Your task to perform on an android device: Is it going to rain today? Image 0: 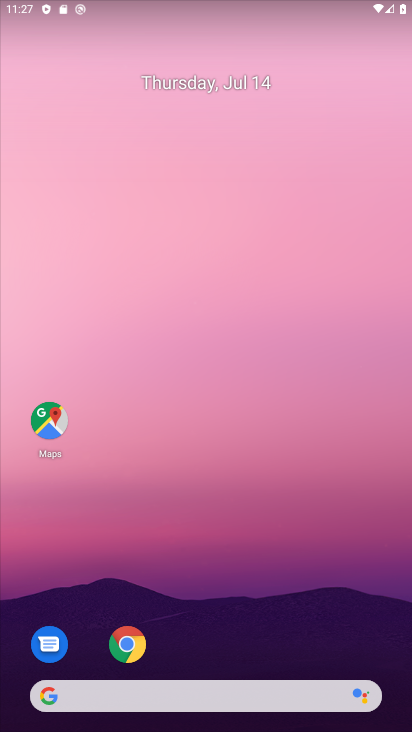
Step 0: drag from (396, 670) to (155, 0)
Your task to perform on an android device: Is it going to rain today? Image 1: 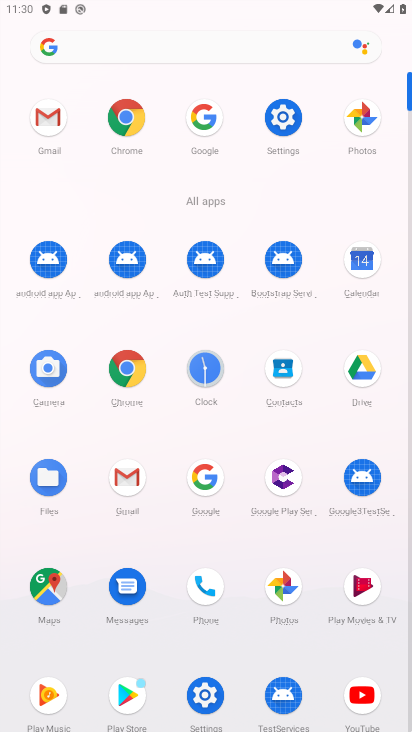
Step 1: click (205, 484)
Your task to perform on an android device: Is it going to rain today? Image 2: 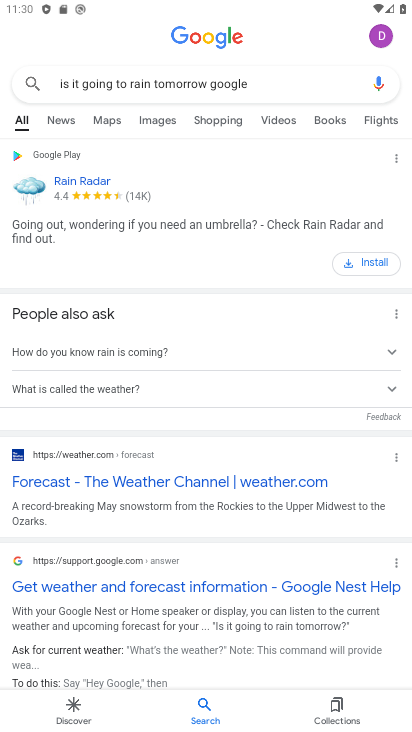
Step 2: press back button
Your task to perform on an android device: Is it going to rain today? Image 3: 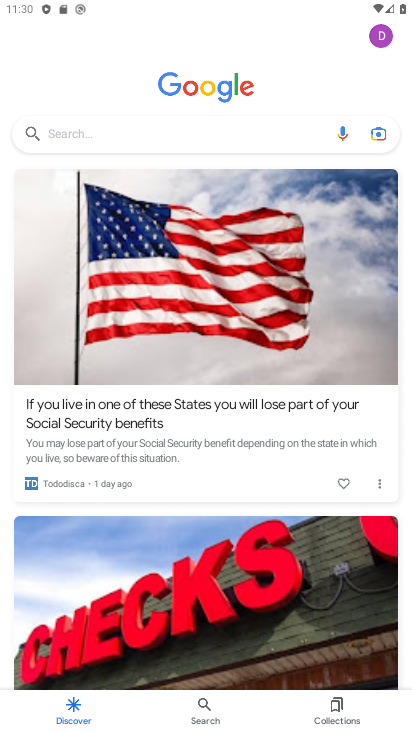
Step 3: click (130, 126)
Your task to perform on an android device: Is it going to rain today? Image 4: 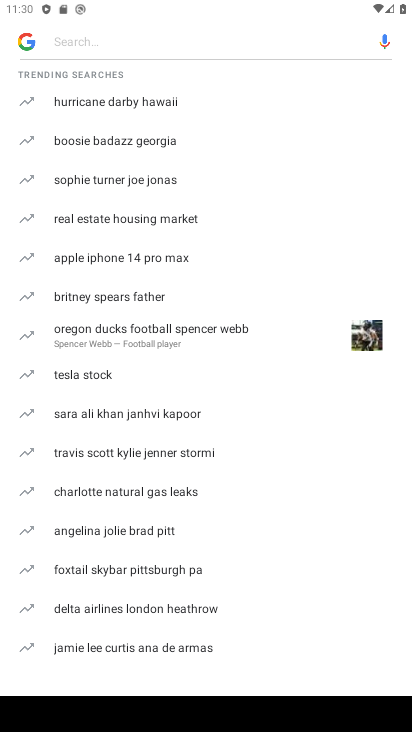
Step 4: type "Is it going to rain today?"
Your task to perform on an android device: Is it going to rain today? Image 5: 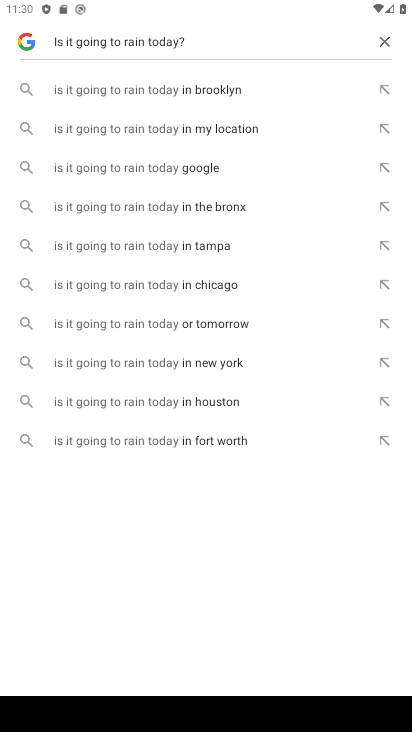
Step 5: click (184, 172)
Your task to perform on an android device: Is it going to rain today? Image 6: 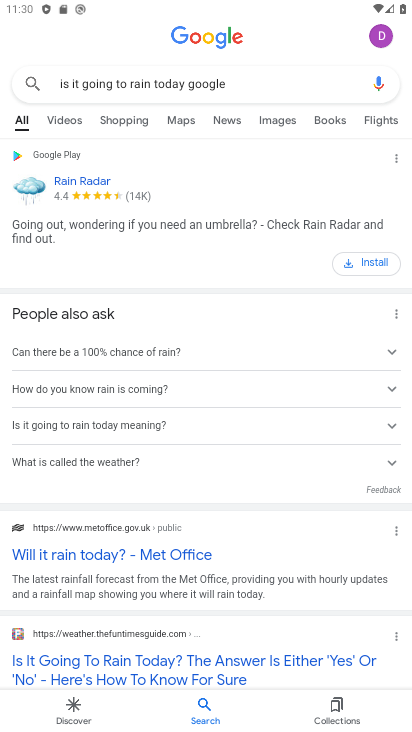
Step 6: task complete